Your task to perform on an android device: turn off location history Image 0: 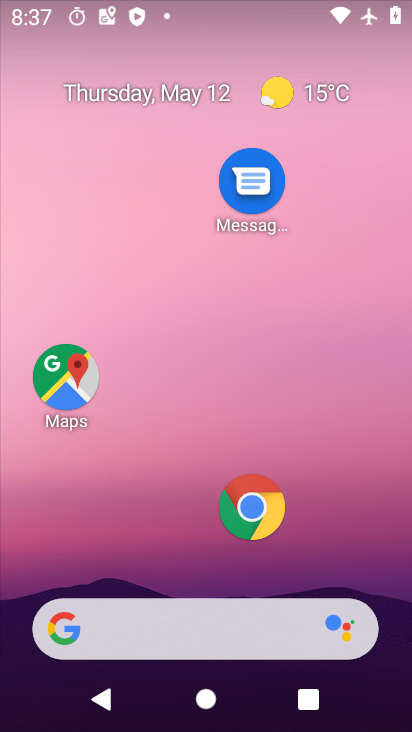
Step 0: drag from (304, 583) to (330, 26)
Your task to perform on an android device: turn off location history Image 1: 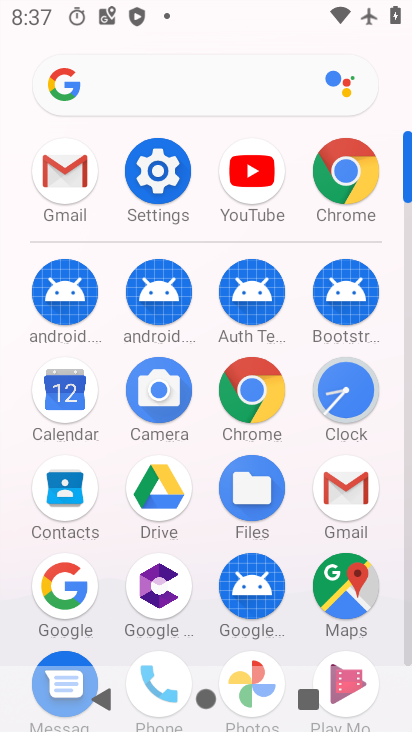
Step 1: click (155, 188)
Your task to perform on an android device: turn off location history Image 2: 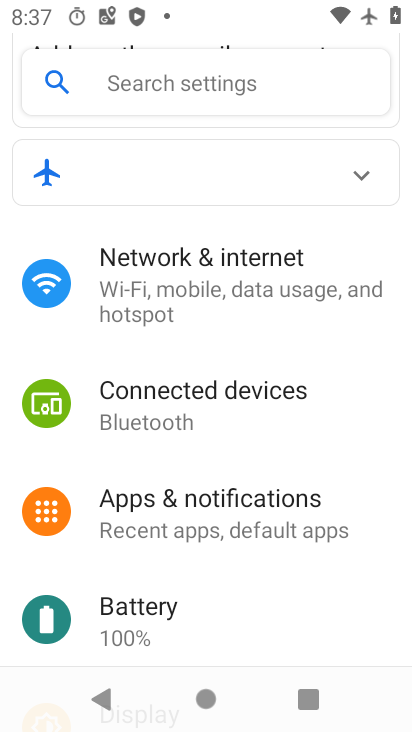
Step 2: drag from (189, 579) to (201, 350)
Your task to perform on an android device: turn off location history Image 3: 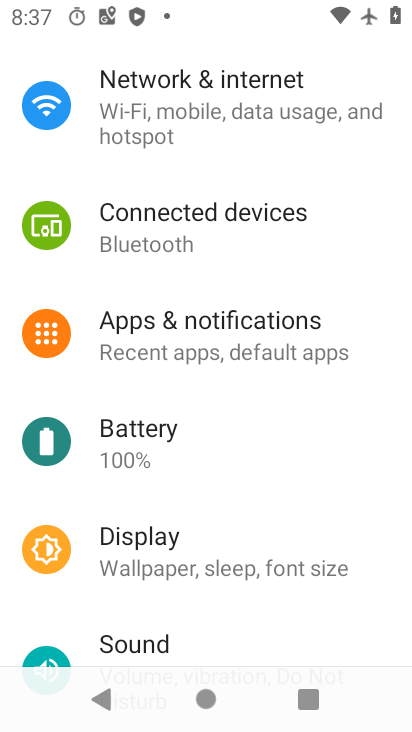
Step 3: drag from (183, 561) to (191, 243)
Your task to perform on an android device: turn off location history Image 4: 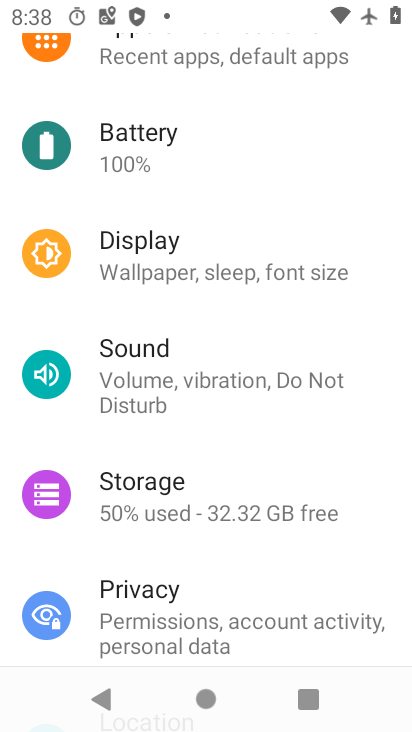
Step 4: drag from (228, 622) to (311, 385)
Your task to perform on an android device: turn off location history Image 5: 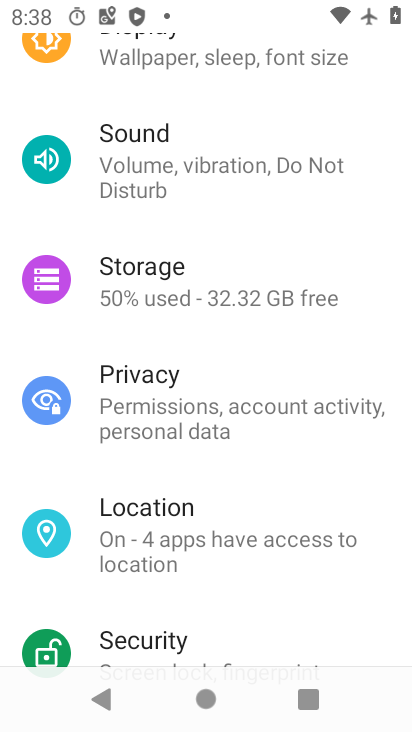
Step 5: click (204, 535)
Your task to perform on an android device: turn off location history Image 6: 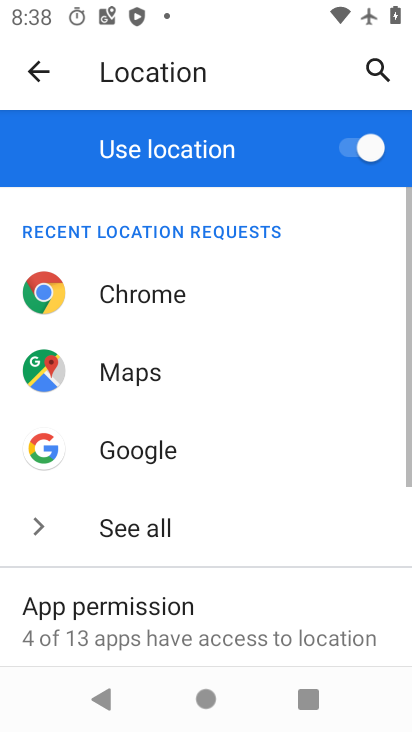
Step 6: click (334, 156)
Your task to perform on an android device: turn off location history Image 7: 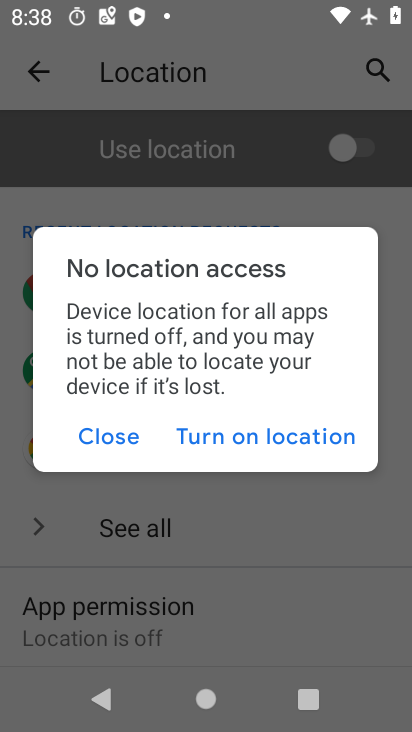
Step 7: task complete